Your task to perform on an android device: see tabs open on other devices in the chrome app Image 0: 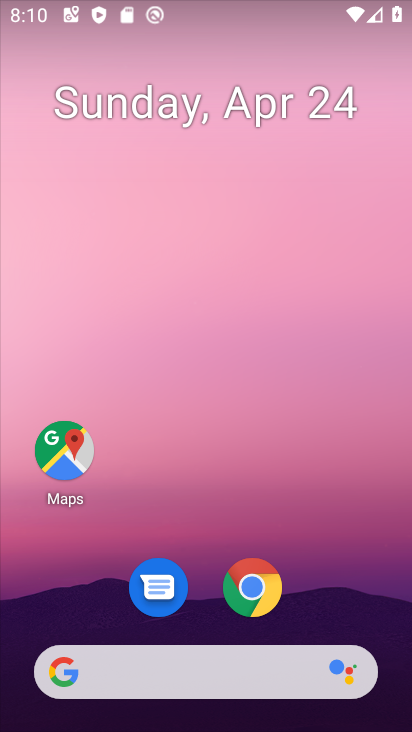
Step 0: click (258, 598)
Your task to perform on an android device: see tabs open on other devices in the chrome app Image 1: 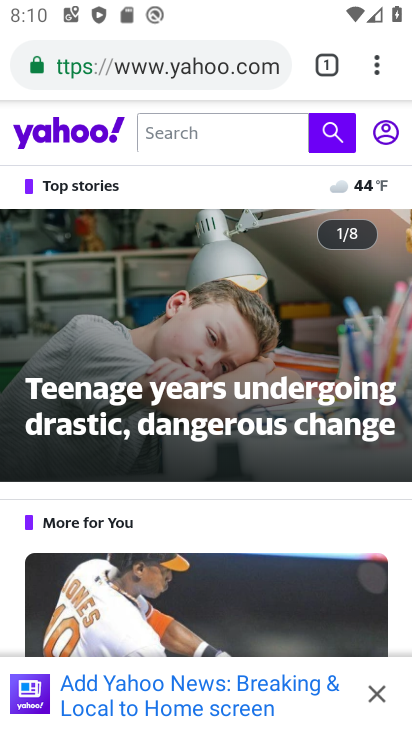
Step 1: click (378, 70)
Your task to perform on an android device: see tabs open on other devices in the chrome app Image 2: 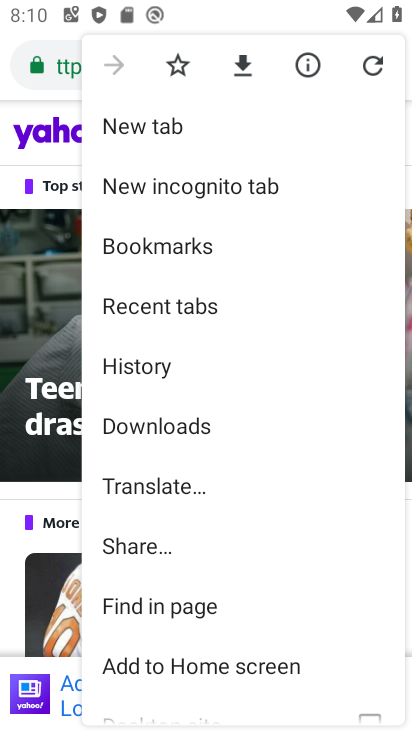
Step 2: click (174, 314)
Your task to perform on an android device: see tabs open on other devices in the chrome app Image 3: 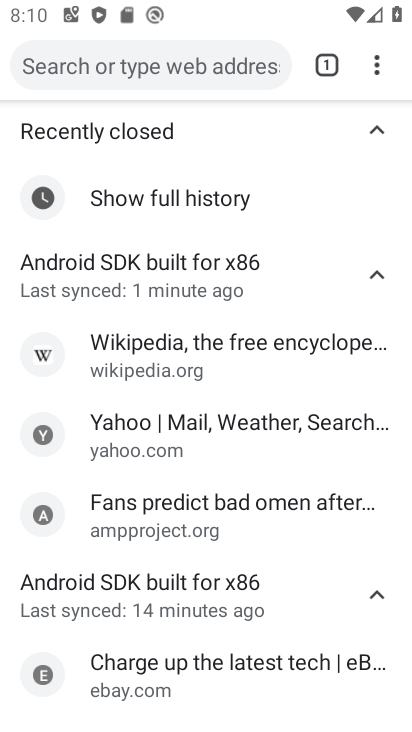
Step 3: task complete